Your task to perform on an android device: open a bookmark in the chrome app Image 0: 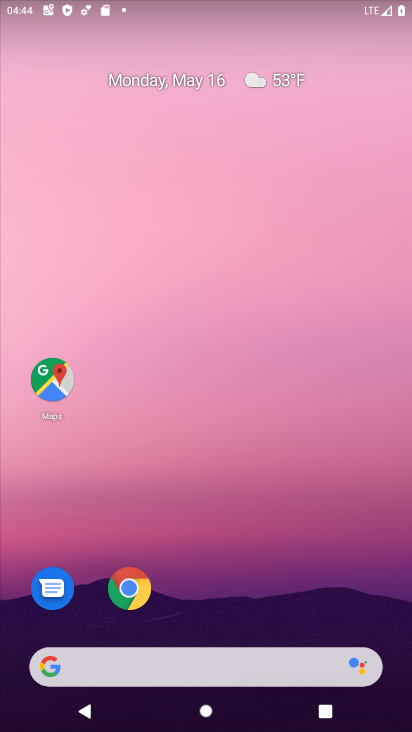
Step 0: drag from (257, 535) to (180, 2)
Your task to perform on an android device: open a bookmark in the chrome app Image 1: 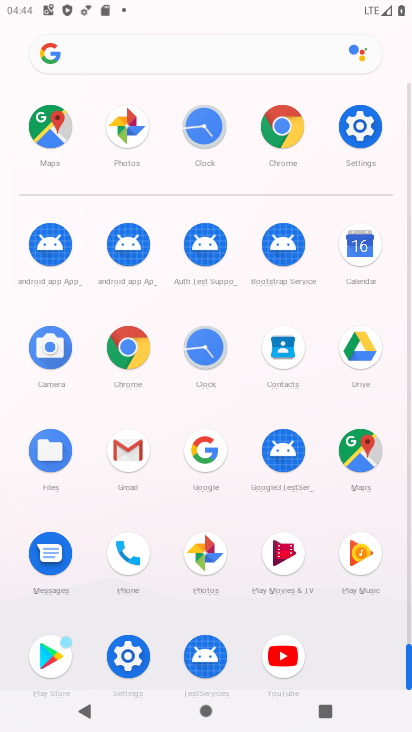
Step 1: click (126, 344)
Your task to perform on an android device: open a bookmark in the chrome app Image 2: 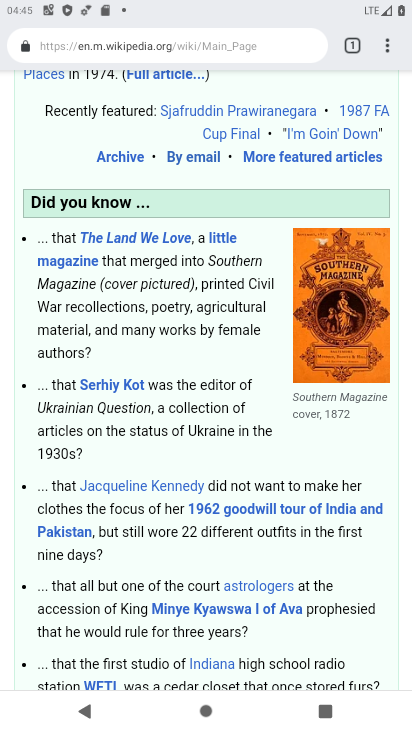
Step 2: task complete